Your task to perform on an android device: Open accessibility settings Image 0: 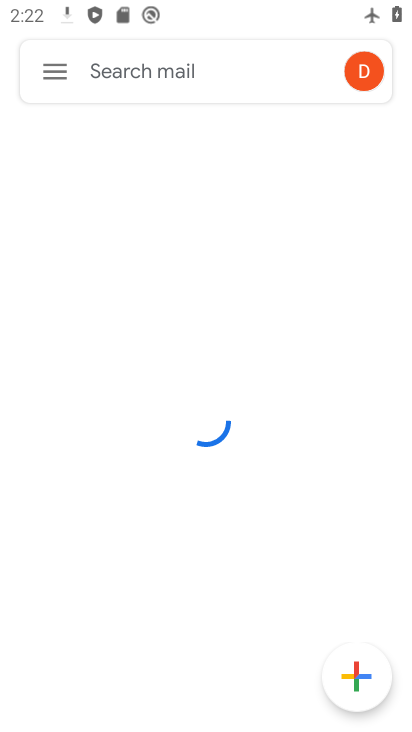
Step 0: press home button
Your task to perform on an android device: Open accessibility settings Image 1: 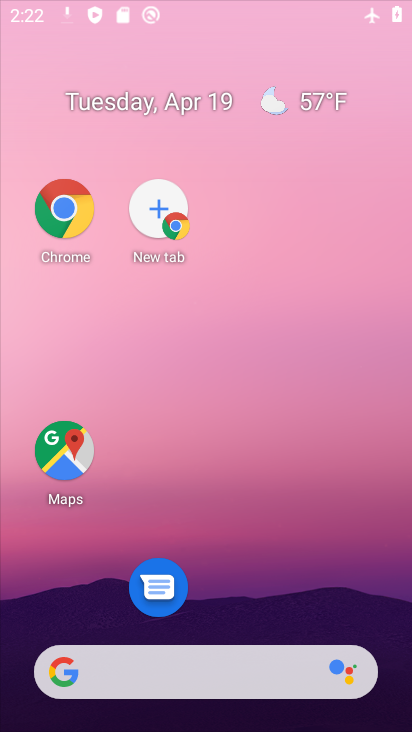
Step 1: press home button
Your task to perform on an android device: Open accessibility settings Image 2: 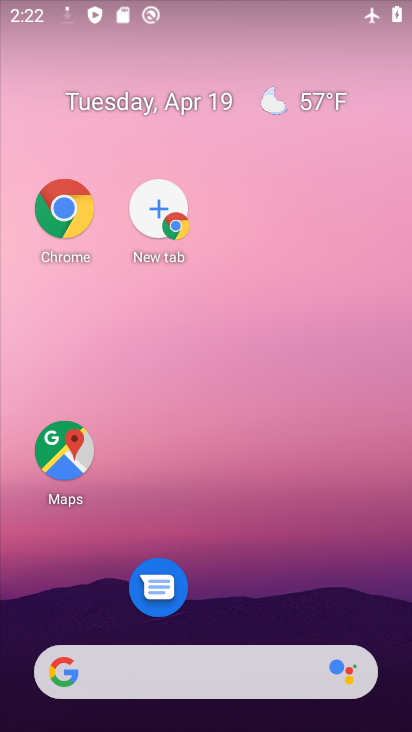
Step 2: drag from (274, 652) to (261, 23)
Your task to perform on an android device: Open accessibility settings Image 3: 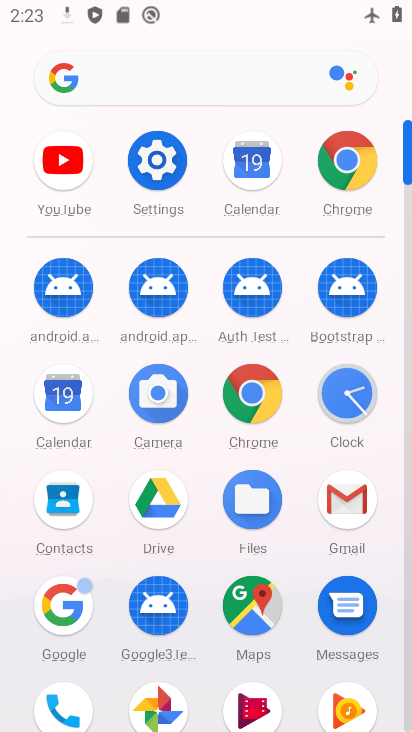
Step 3: click (351, 167)
Your task to perform on an android device: Open accessibility settings Image 4: 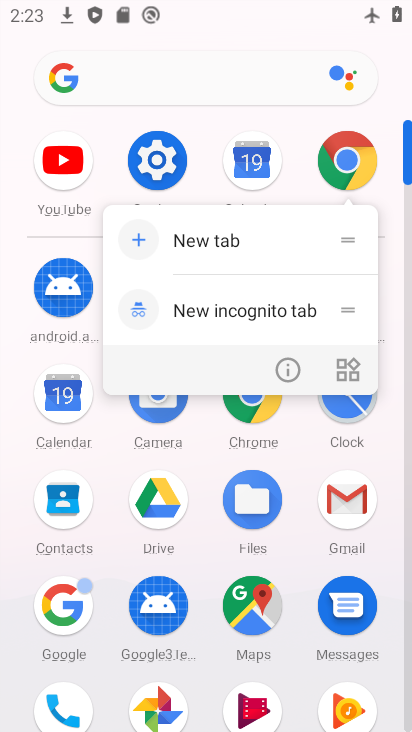
Step 4: click (341, 170)
Your task to perform on an android device: Open accessibility settings Image 5: 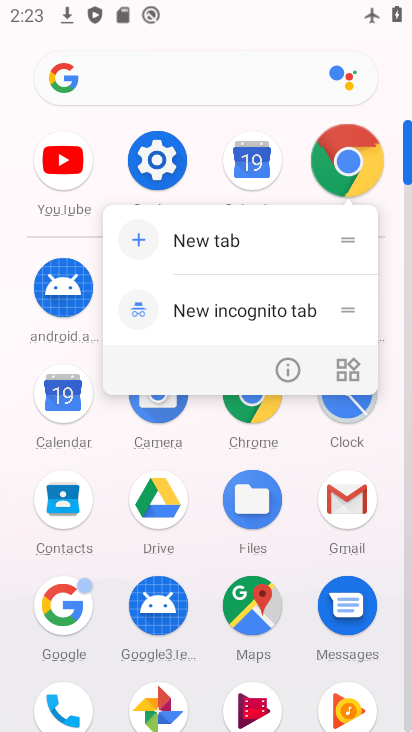
Step 5: click (341, 170)
Your task to perform on an android device: Open accessibility settings Image 6: 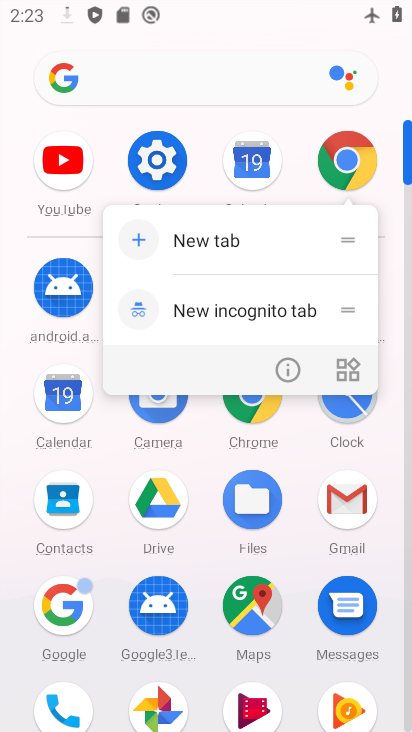
Step 6: click (341, 170)
Your task to perform on an android device: Open accessibility settings Image 7: 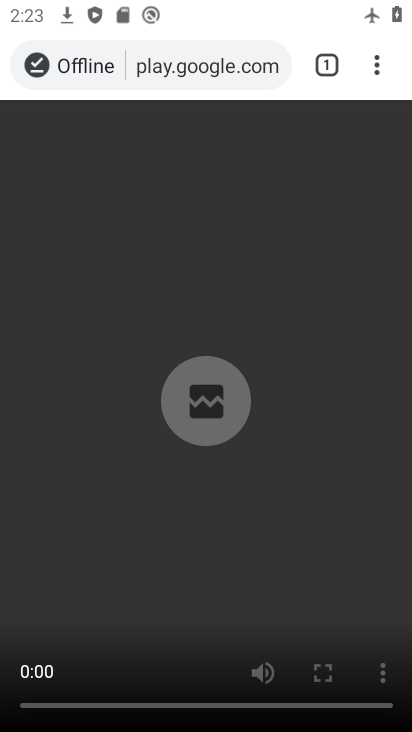
Step 7: press home button
Your task to perform on an android device: Open accessibility settings Image 8: 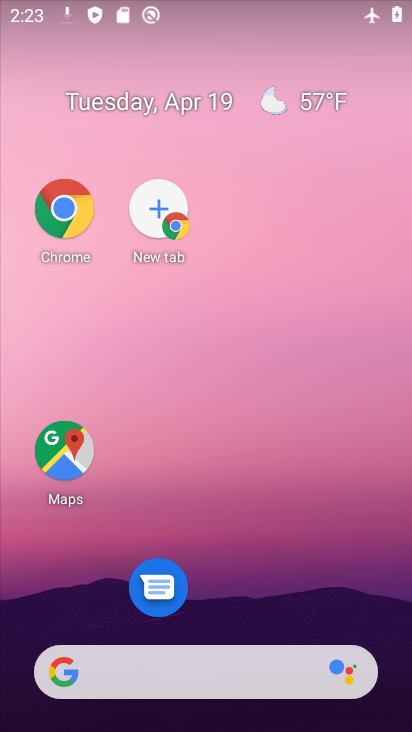
Step 8: drag from (270, 660) to (0, 8)
Your task to perform on an android device: Open accessibility settings Image 9: 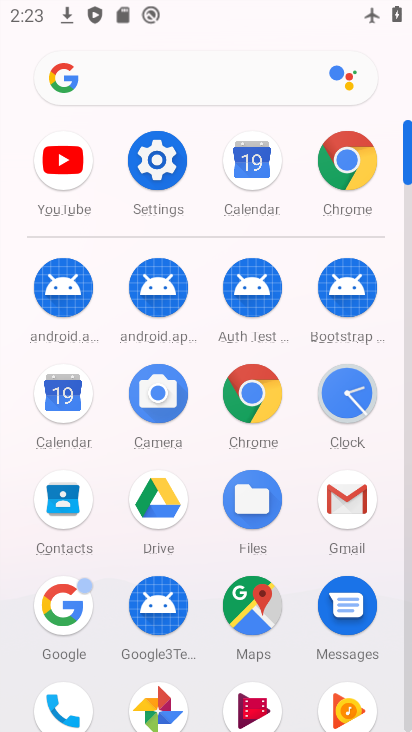
Step 9: click (258, 386)
Your task to perform on an android device: Open accessibility settings Image 10: 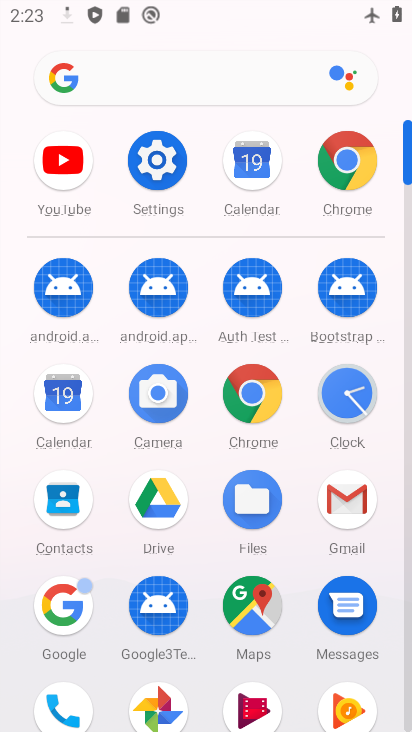
Step 10: click (258, 386)
Your task to perform on an android device: Open accessibility settings Image 11: 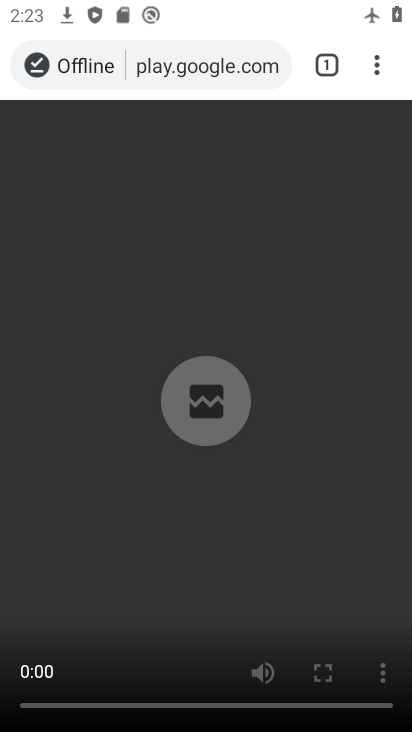
Step 11: click (372, 56)
Your task to perform on an android device: Open accessibility settings Image 12: 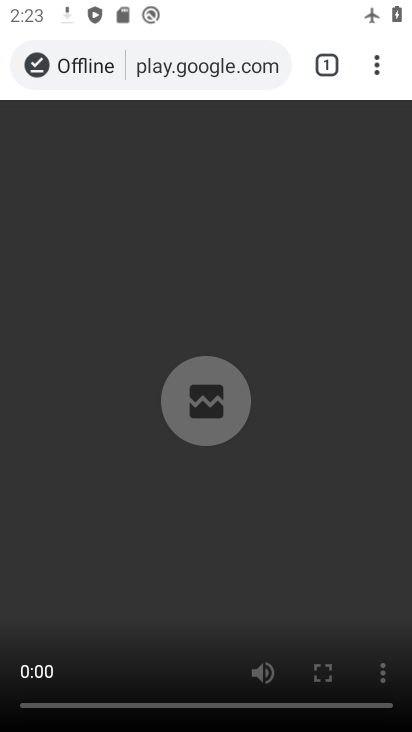
Step 12: press home button
Your task to perform on an android device: Open accessibility settings Image 13: 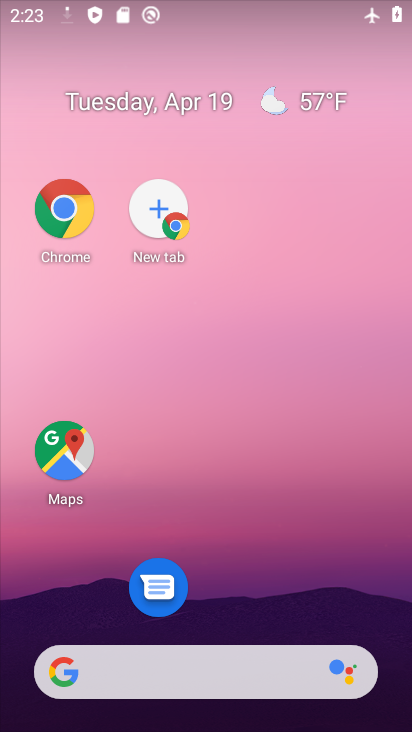
Step 13: drag from (237, 658) to (220, 206)
Your task to perform on an android device: Open accessibility settings Image 14: 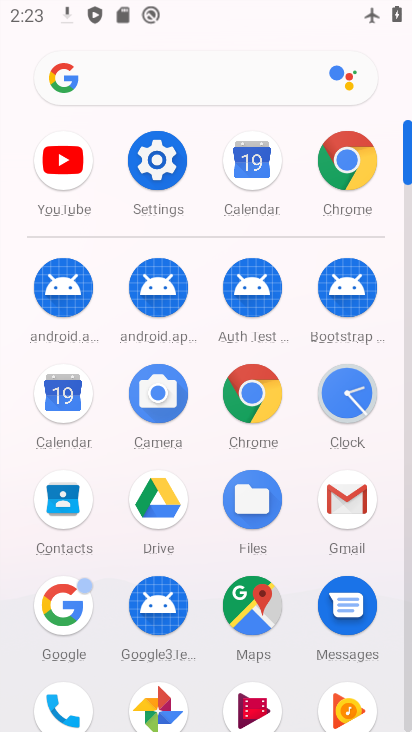
Step 14: click (139, 139)
Your task to perform on an android device: Open accessibility settings Image 15: 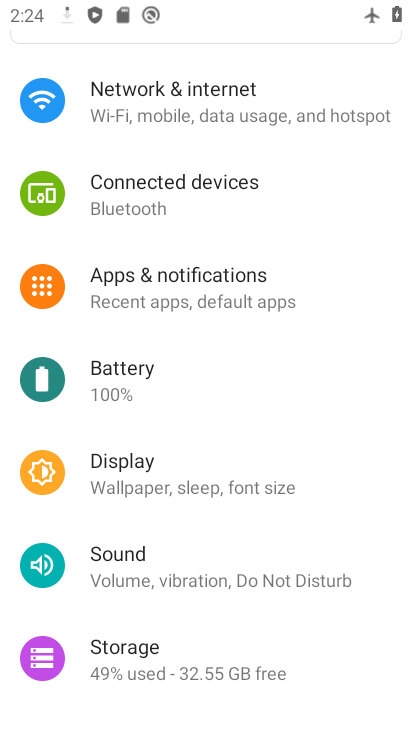
Step 15: drag from (200, 498) to (169, 125)
Your task to perform on an android device: Open accessibility settings Image 16: 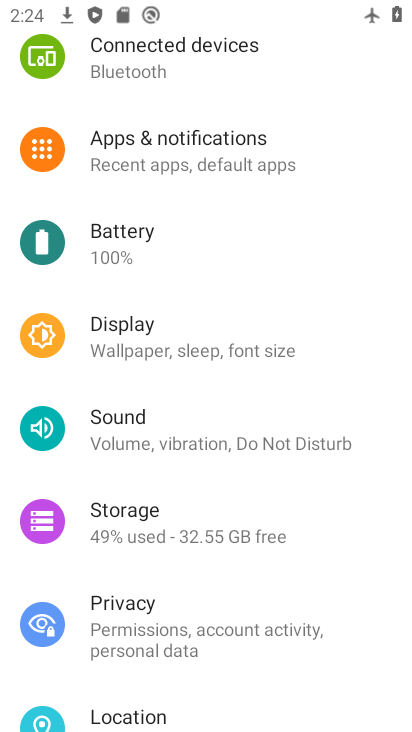
Step 16: drag from (197, 410) to (223, 251)
Your task to perform on an android device: Open accessibility settings Image 17: 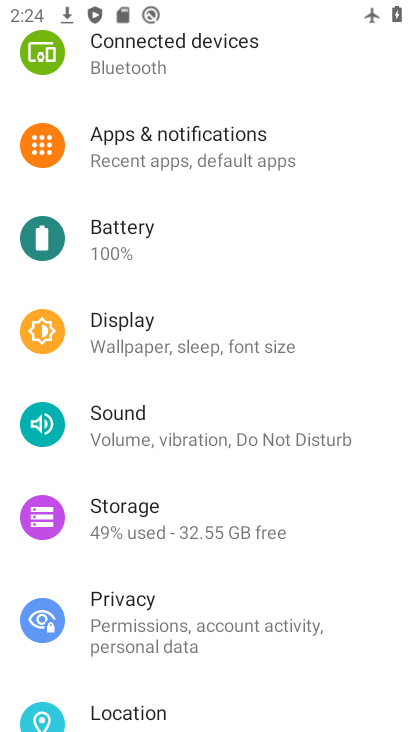
Step 17: drag from (257, 441) to (287, 114)
Your task to perform on an android device: Open accessibility settings Image 18: 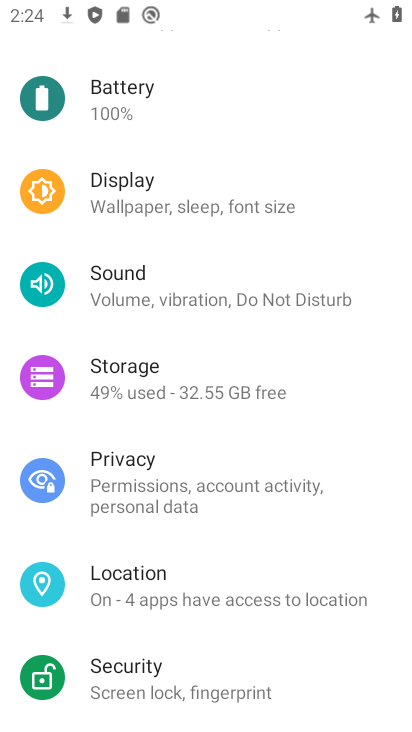
Step 18: drag from (211, 426) to (170, 78)
Your task to perform on an android device: Open accessibility settings Image 19: 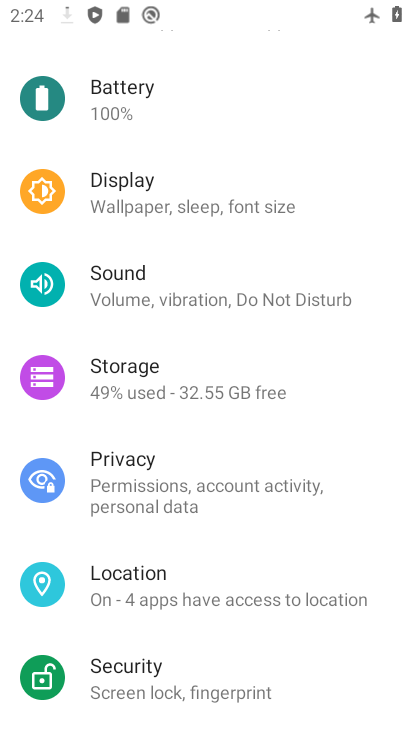
Step 19: drag from (174, 590) to (167, 123)
Your task to perform on an android device: Open accessibility settings Image 20: 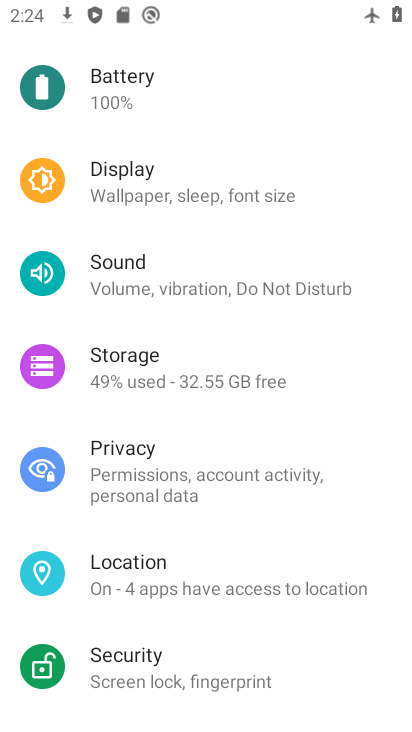
Step 20: drag from (165, 519) to (193, 208)
Your task to perform on an android device: Open accessibility settings Image 21: 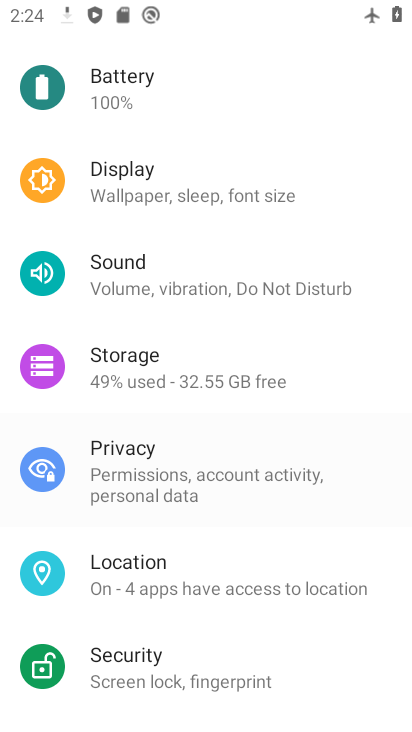
Step 21: drag from (212, 509) to (253, 148)
Your task to perform on an android device: Open accessibility settings Image 22: 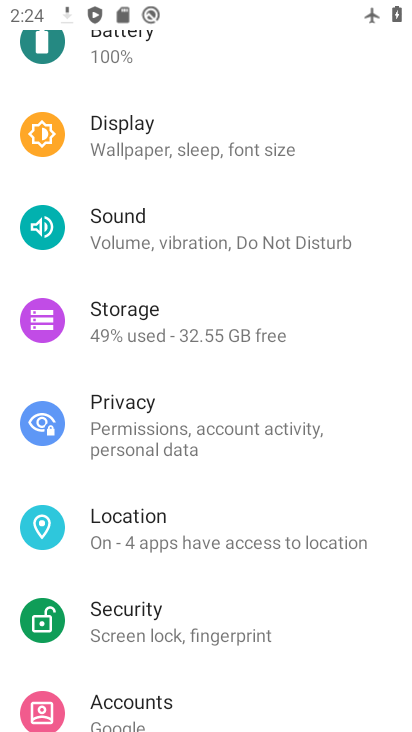
Step 22: drag from (180, 335) to (166, 66)
Your task to perform on an android device: Open accessibility settings Image 23: 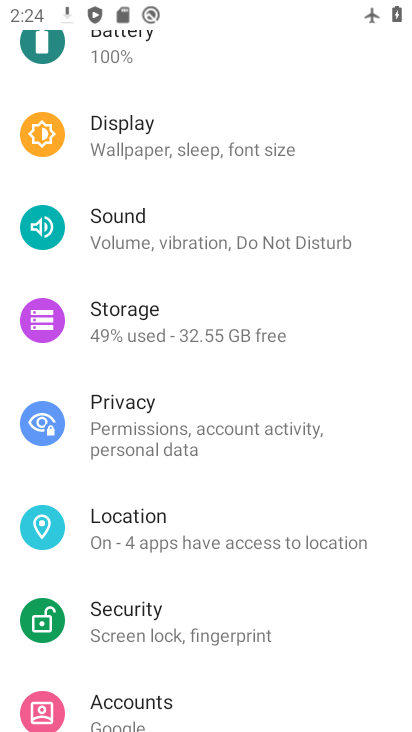
Step 23: drag from (247, 544) to (182, 105)
Your task to perform on an android device: Open accessibility settings Image 24: 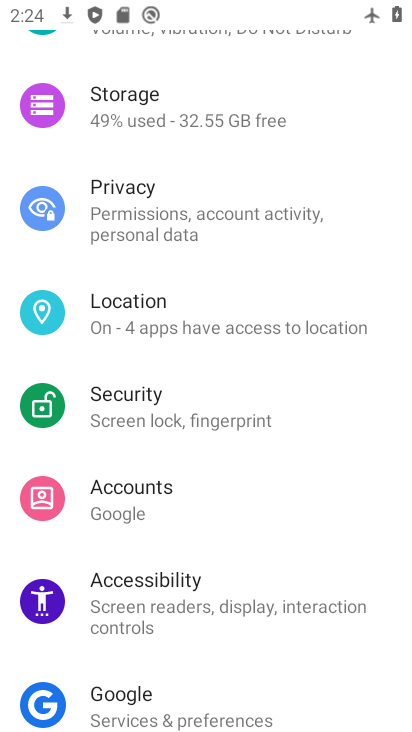
Step 24: drag from (235, 480) to (195, 195)
Your task to perform on an android device: Open accessibility settings Image 25: 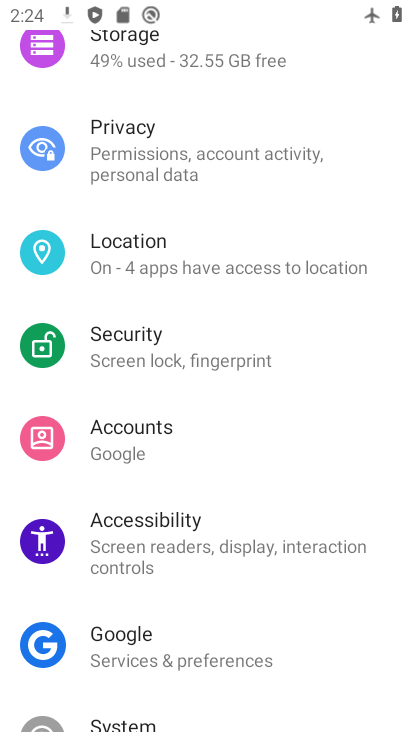
Step 25: drag from (196, 549) to (194, 199)
Your task to perform on an android device: Open accessibility settings Image 26: 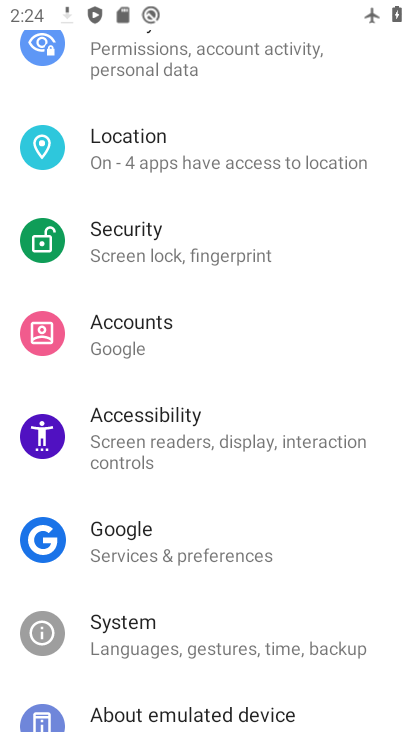
Step 26: drag from (183, 496) to (194, 237)
Your task to perform on an android device: Open accessibility settings Image 27: 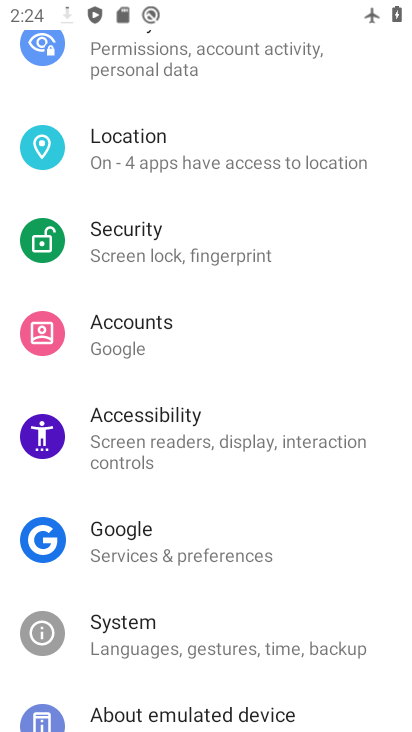
Step 27: drag from (165, 623) to (114, 188)
Your task to perform on an android device: Open accessibility settings Image 28: 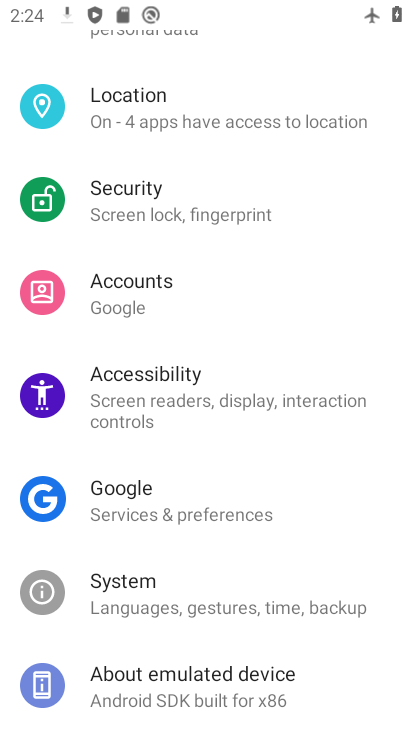
Step 28: click (143, 404)
Your task to perform on an android device: Open accessibility settings Image 29: 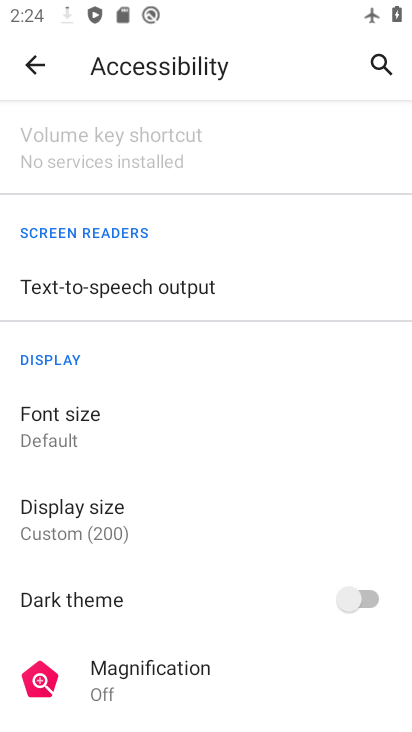
Step 29: task complete